Your task to perform on an android device: turn on wifi Image 0: 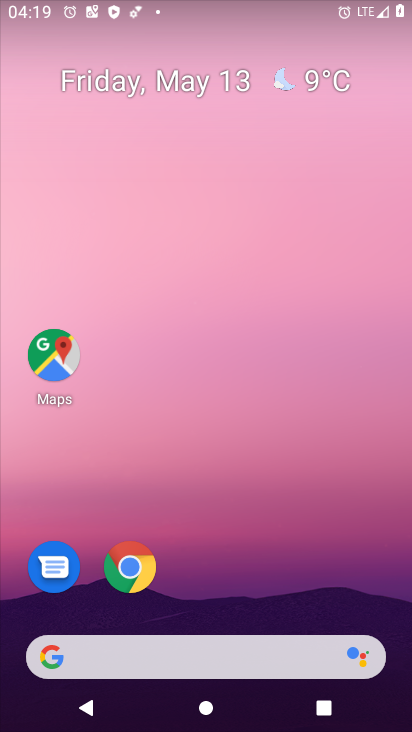
Step 0: drag from (350, 593) to (316, 24)
Your task to perform on an android device: turn on wifi Image 1: 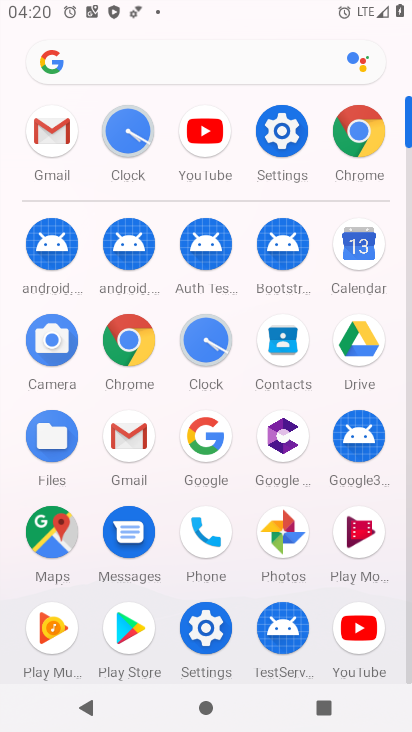
Step 1: click (284, 134)
Your task to perform on an android device: turn on wifi Image 2: 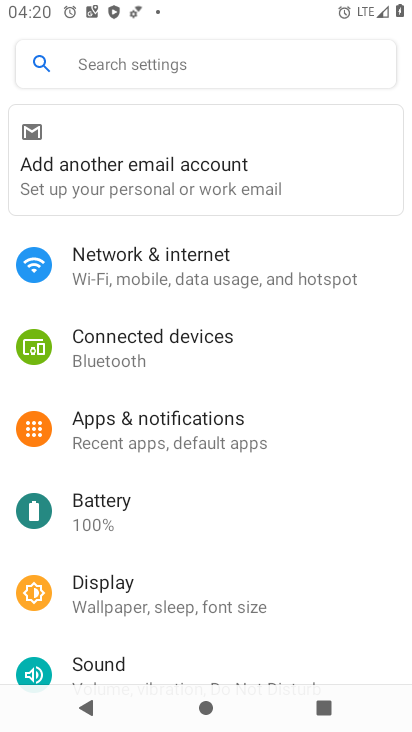
Step 2: click (133, 262)
Your task to perform on an android device: turn on wifi Image 3: 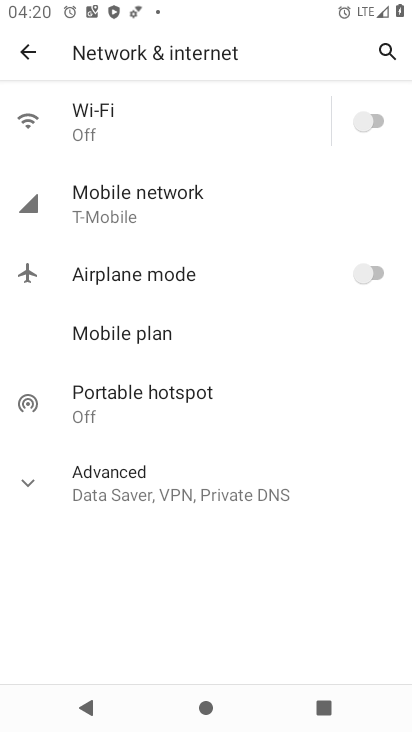
Step 3: click (371, 112)
Your task to perform on an android device: turn on wifi Image 4: 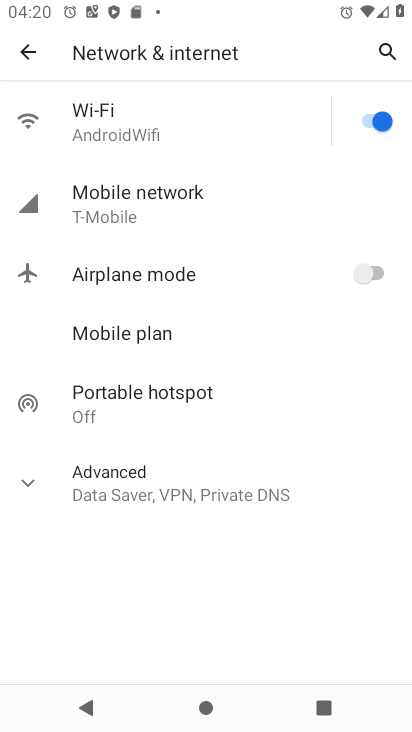
Step 4: task complete